Your task to perform on an android device: Go to network settings Image 0: 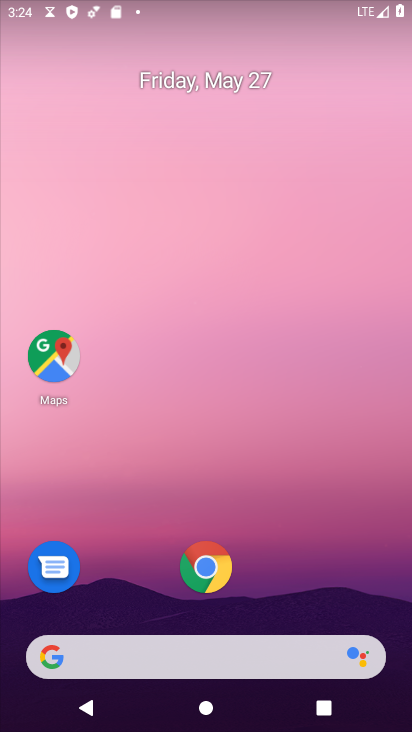
Step 0: drag from (164, 623) to (178, 169)
Your task to perform on an android device: Go to network settings Image 1: 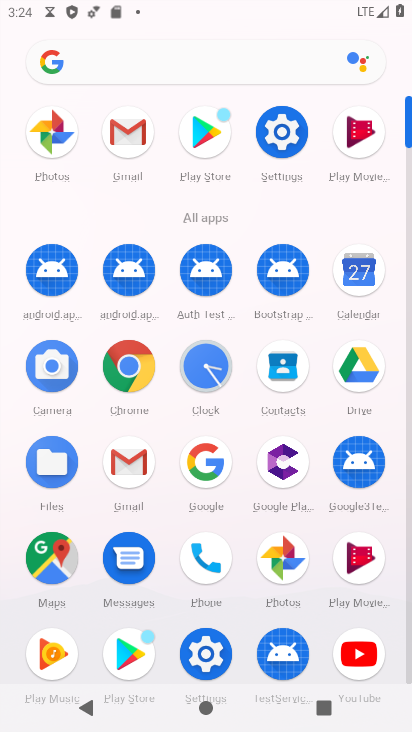
Step 1: click (282, 133)
Your task to perform on an android device: Go to network settings Image 2: 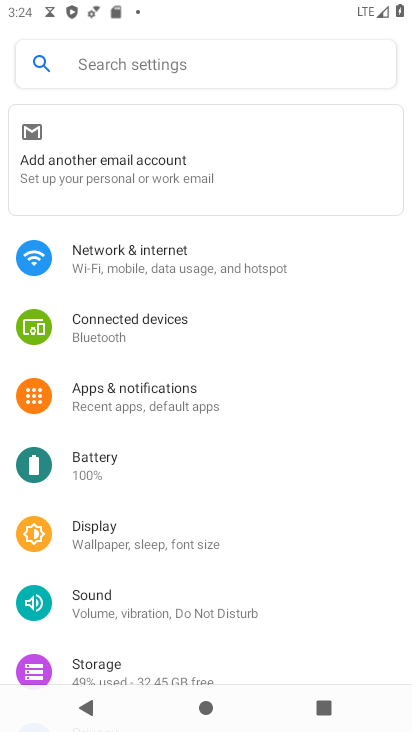
Step 2: click (107, 268)
Your task to perform on an android device: Go to network settings Image 3: 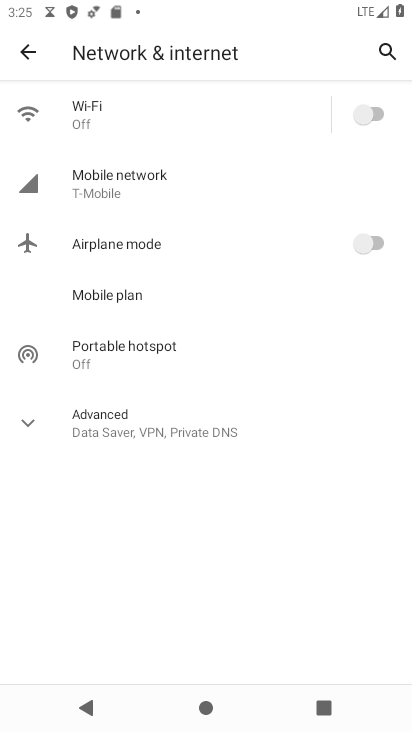
Step 3: task complete